Your task to perform on an android device: open app "Venmo" Image 0: 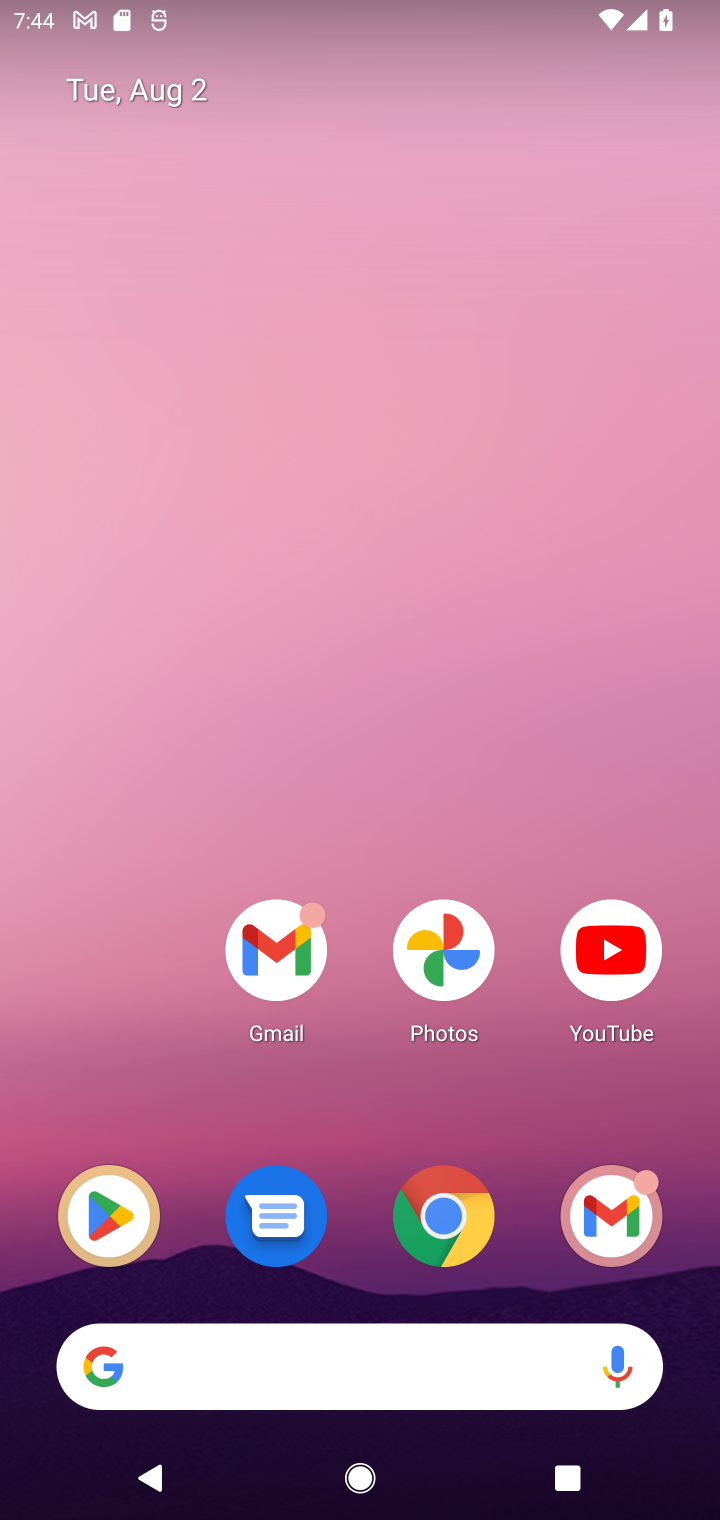
Step 0: press home button
Your task to perform on an android device: open app "Venmo" Image 1: 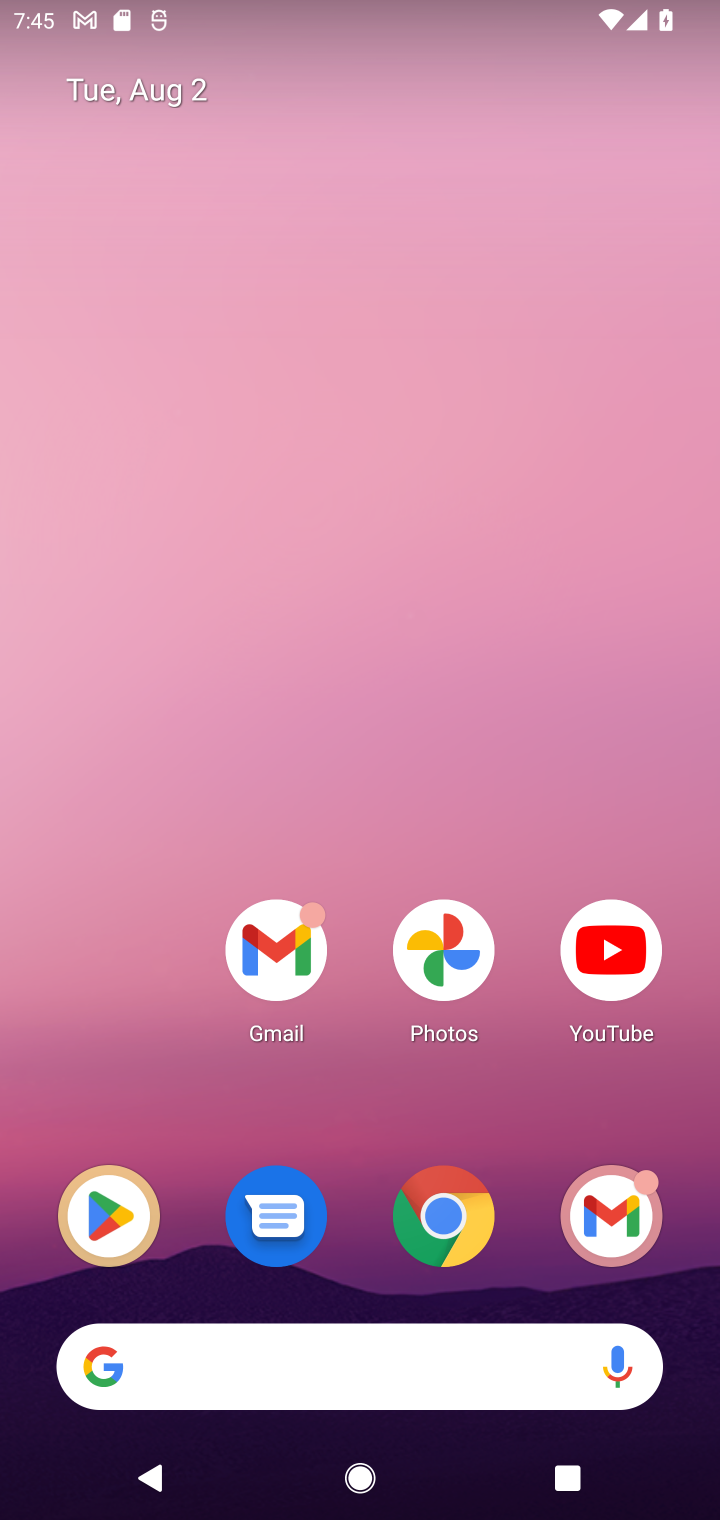
Step 1: click (111, 1201)
Your task to perform on an android device: open app "Venmo" Image 2: 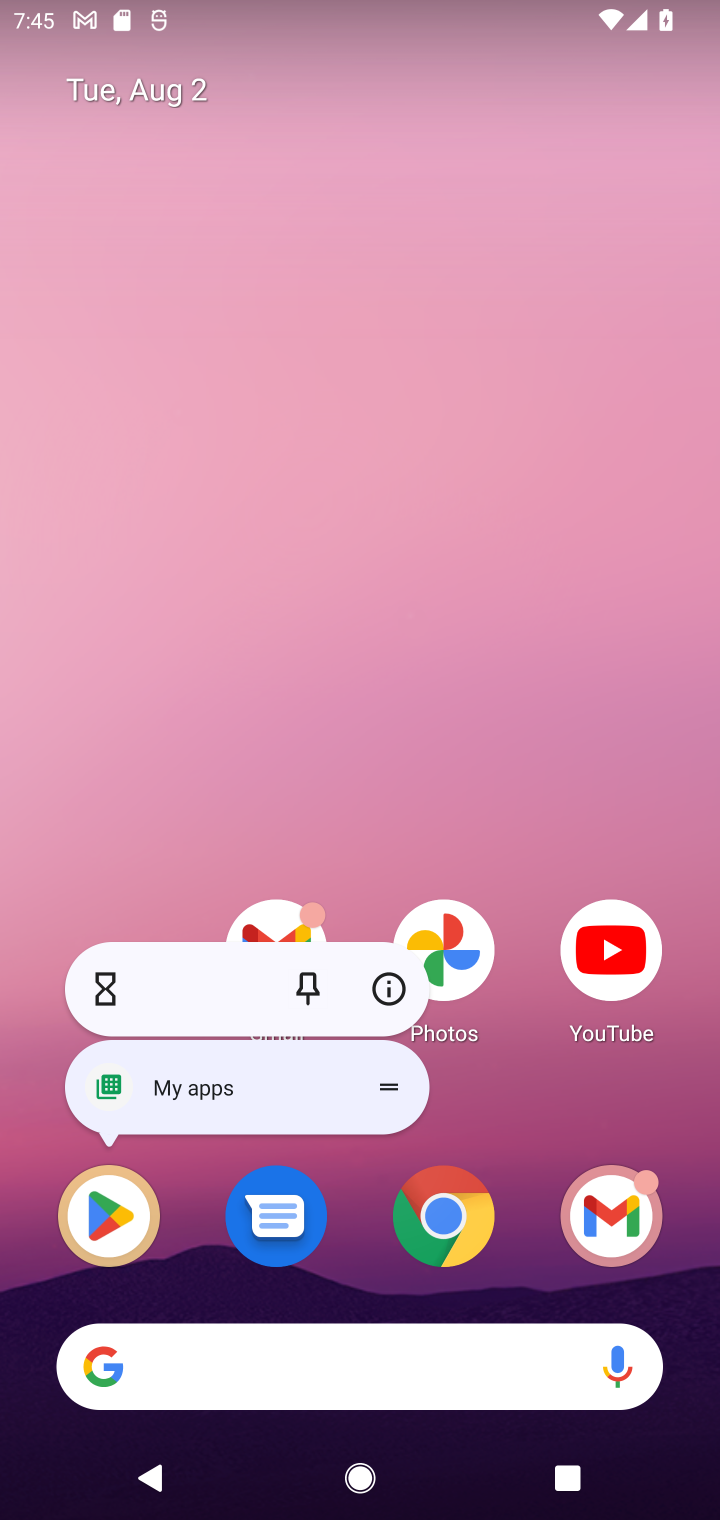
Step 2: click (104, 1203)
Your task to perform on an android device: open app "Venmo" Image 3: 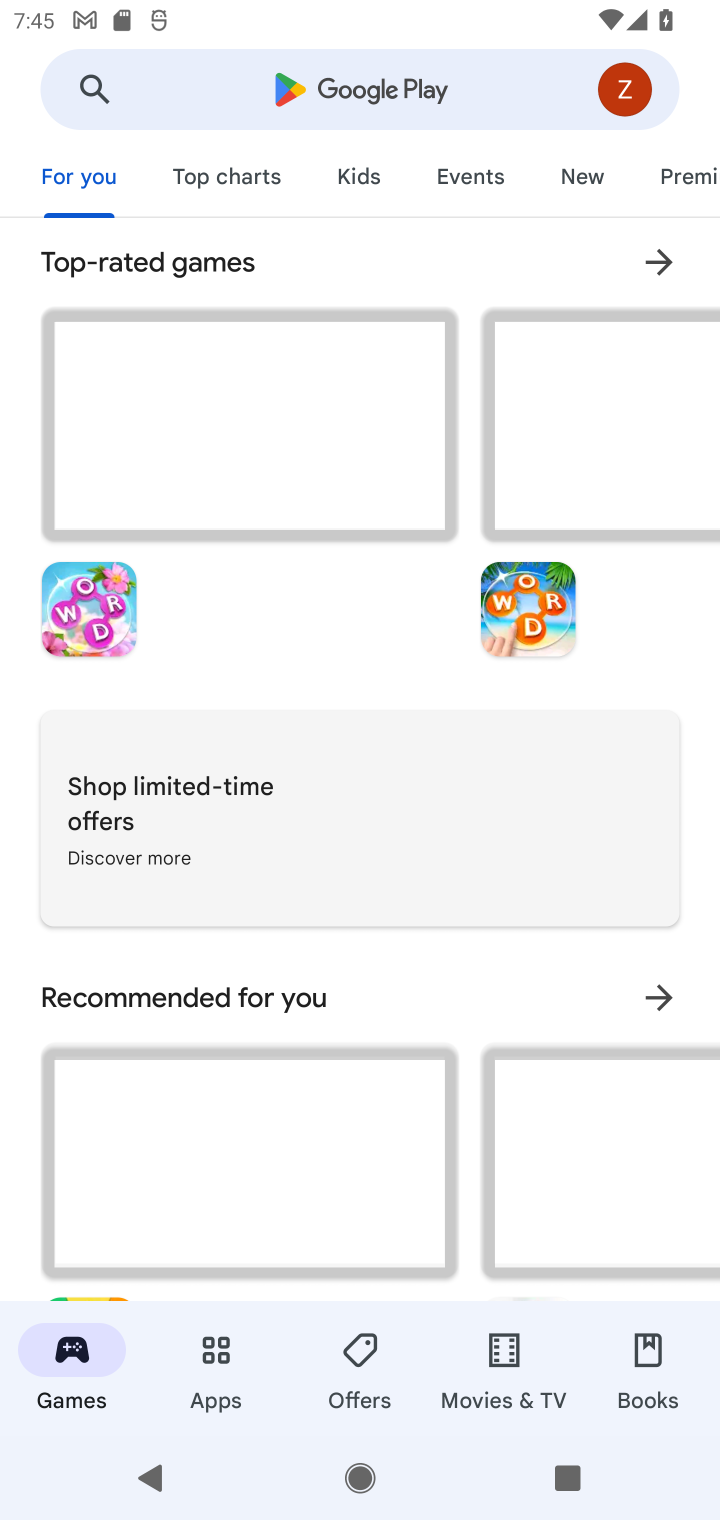
Step 3: click (492, 86)
Your task to perform on an android device: open app "Venmo" Image 4: 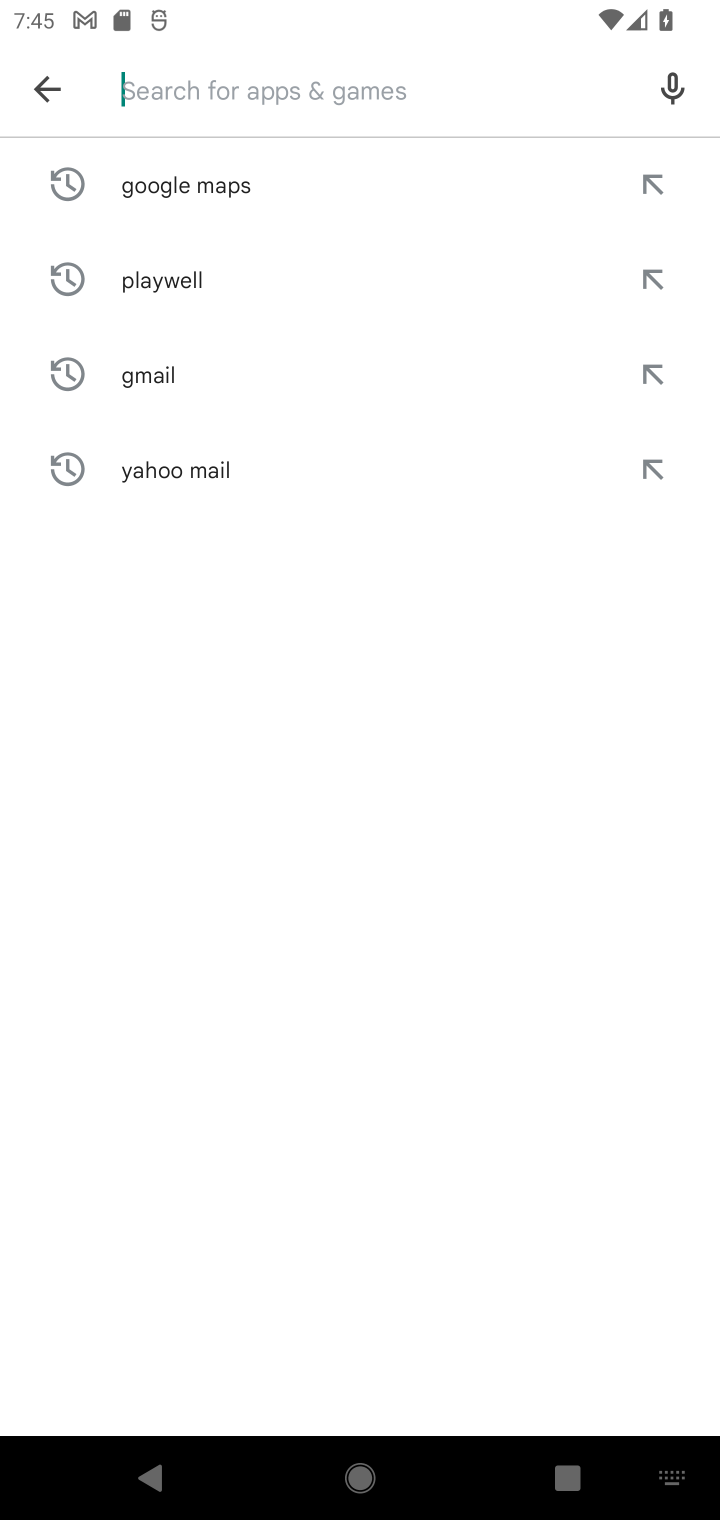
Step 4: type "Venmo"
Your task to perform on an android device: open app "Venmo" Image 5: 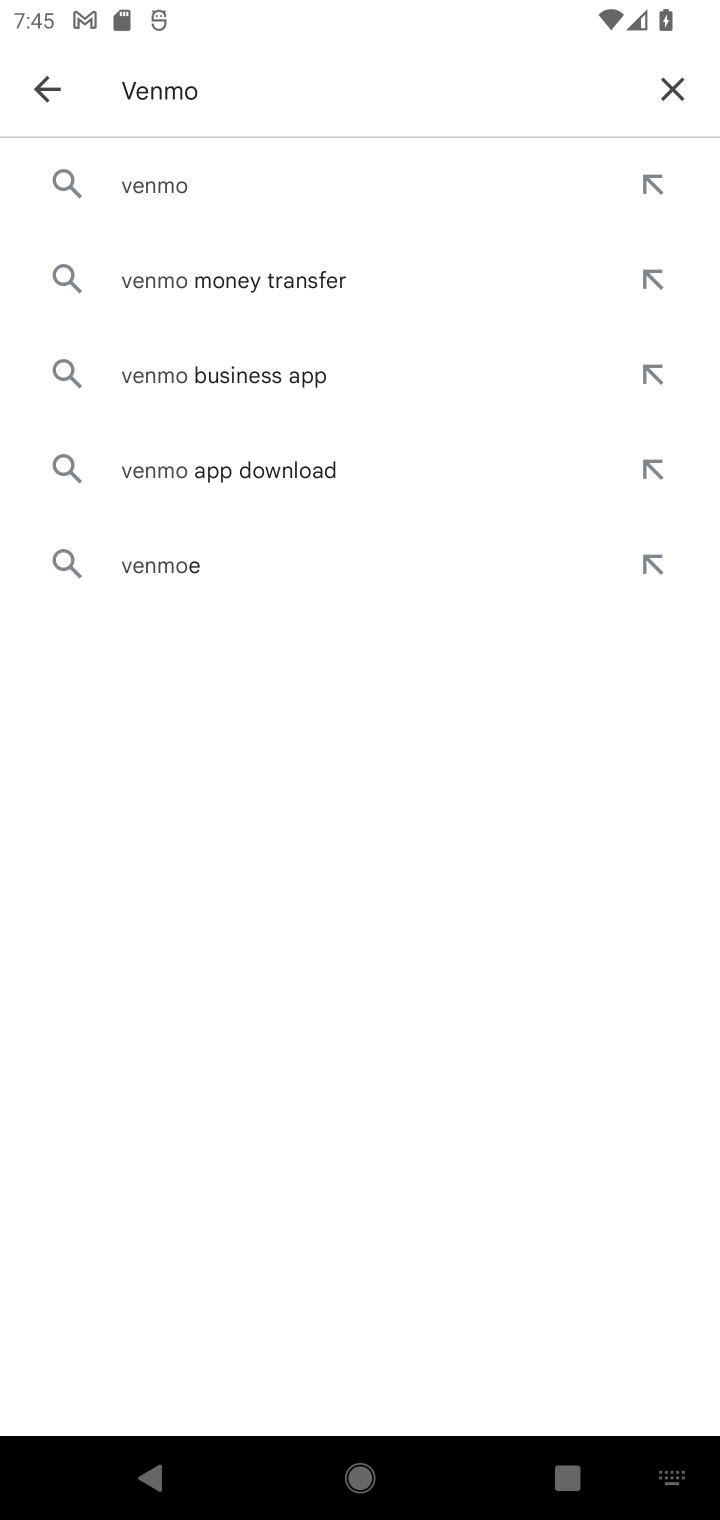
Step 5: click (168, 187)
Your task to perform on an android device: open app "Venmo" Image 6: 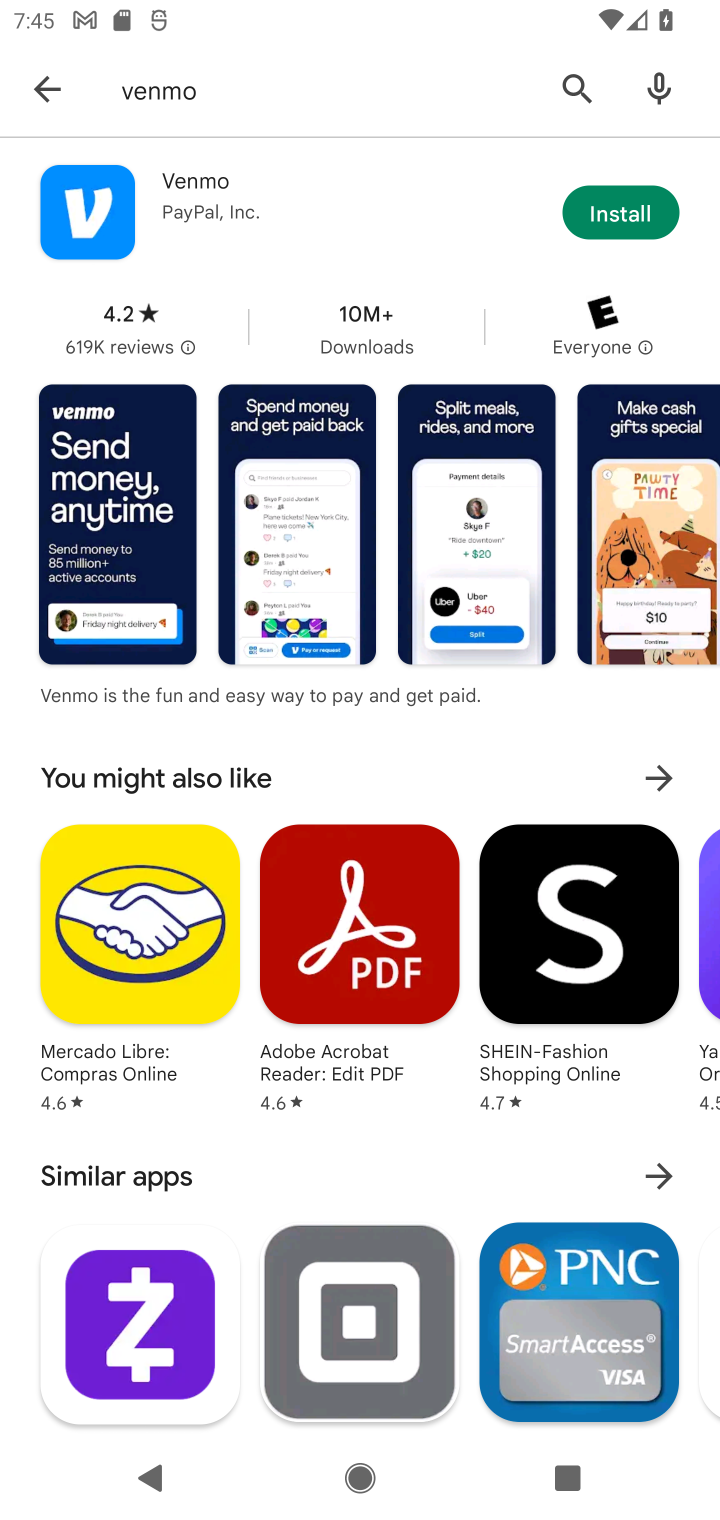
Step 6: task complete